Your task to perform on an android device: Open accessibility settings Image 0: 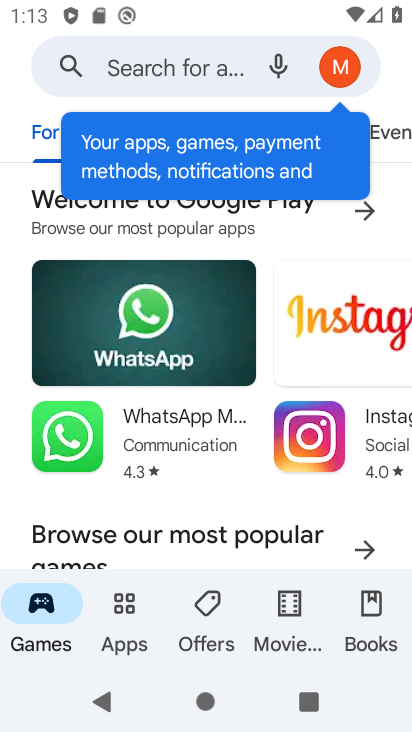
Step 0: press home button
Your task to perform on an android device: Open accessibility settings Image 1: 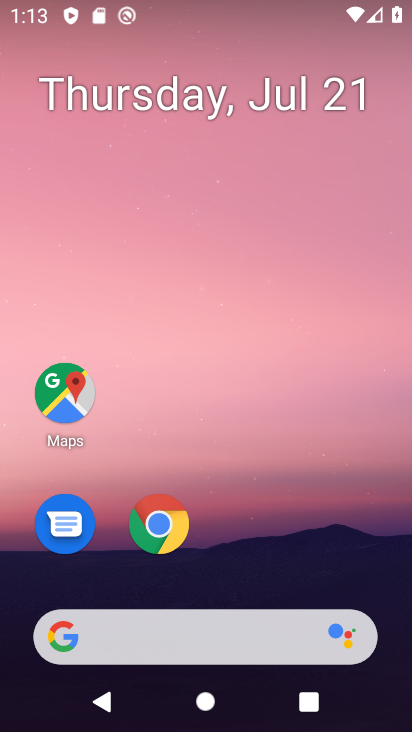
Step 1: drag from (267, 541) to (221, 61)
Your task to perform on an android device: Open accessibility settings Image 2: 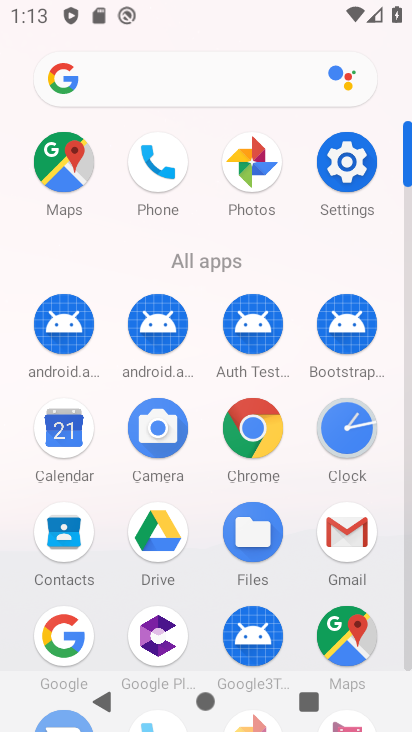
Step 2: click (342, 162)
Your task to perform on an android device: Open accessibility settings Image 3: 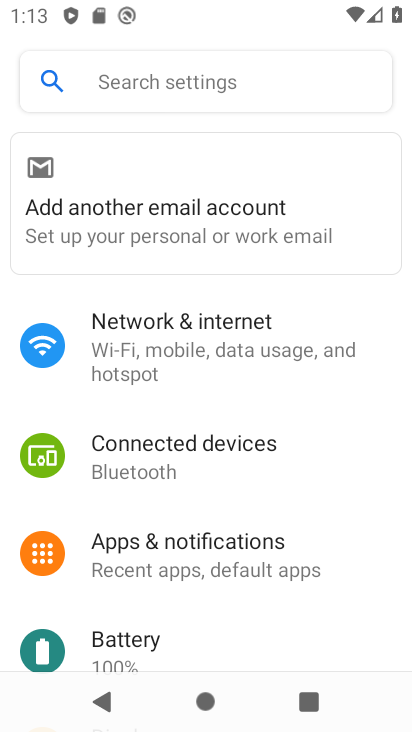
Step 3: drag from (244, 592) to (270, 68)
Your task to perform on an android device: Open accessibility settings Image 4: 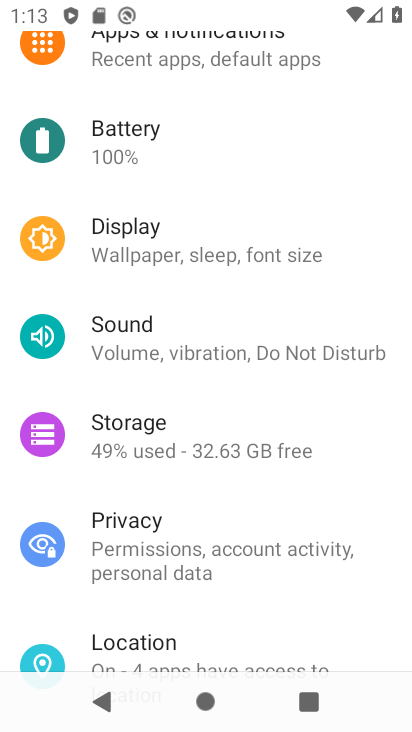
Step 4: drag from (233, 510) to (260, 41)
Your task to perform on an android device: Open accessibility settings Image 5: 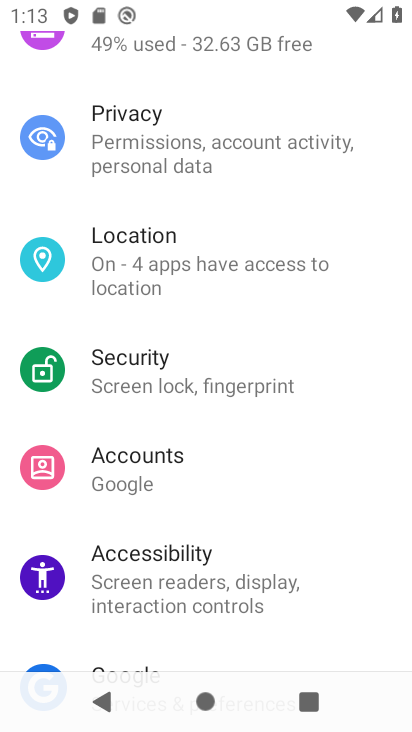
Step 5: click (195, 565)
Your task to perform on an android device: Open accessibility settings Image 6: 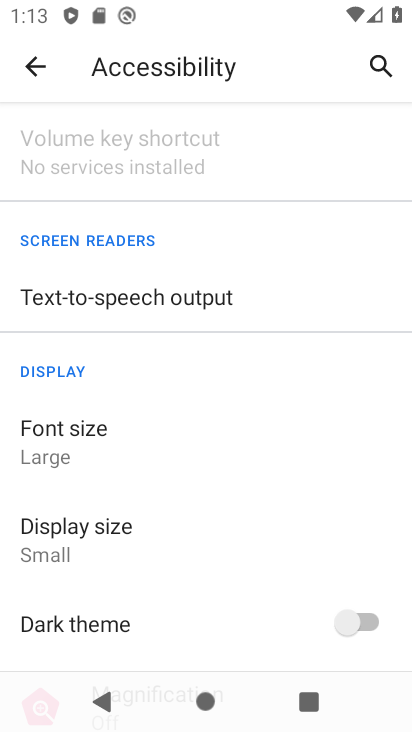
Step 6: task complete